Your task to perform on an android device: open chrome privacy settings Image 0: 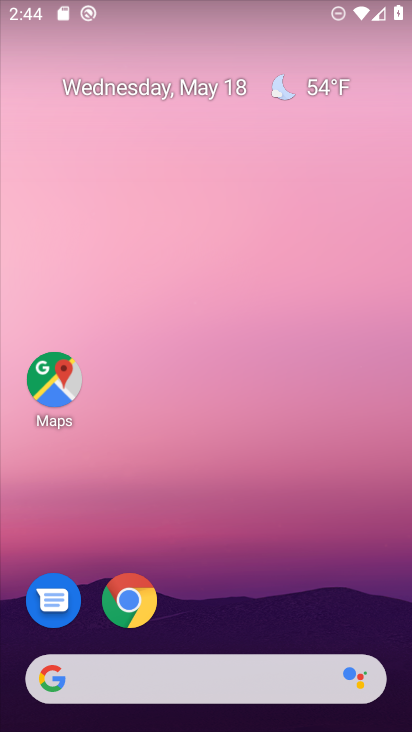
Step 0: click (140, 590)
Your task to perform on an android device: open chrome privacy settings Image 1: 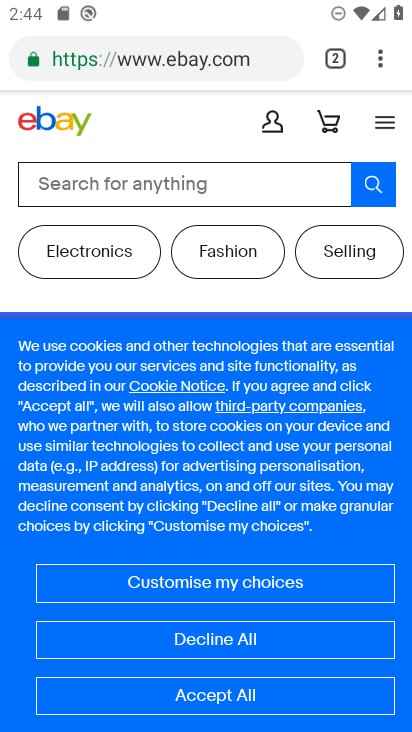
Step 1: click (380, 54)
Your task to perform on an android device: open chrome privacy settings Image 2: 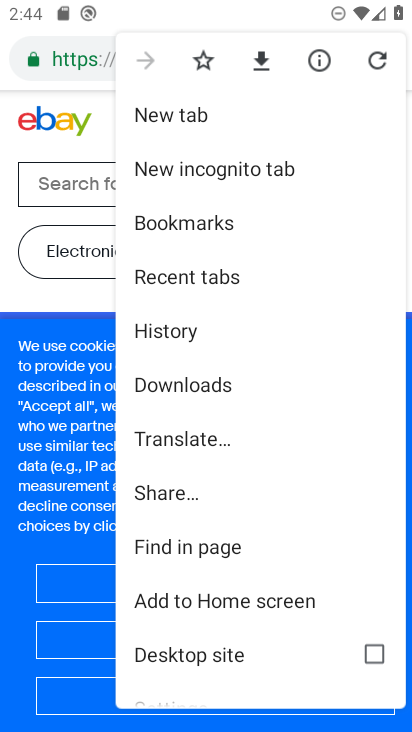
Step 2: drag from (203, 632) to (280, 312)
Your task to perform on an android device: open chrome privacy settings Image 3: 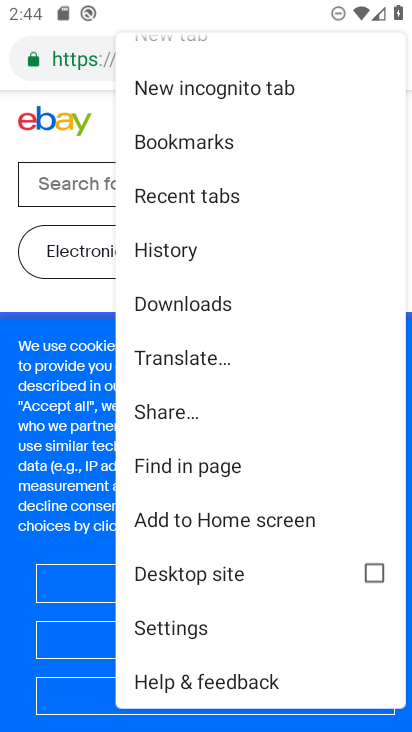
Step 3: click (204, 624)
Your task to perform on an android device: open chrome privacy settings Image 4: 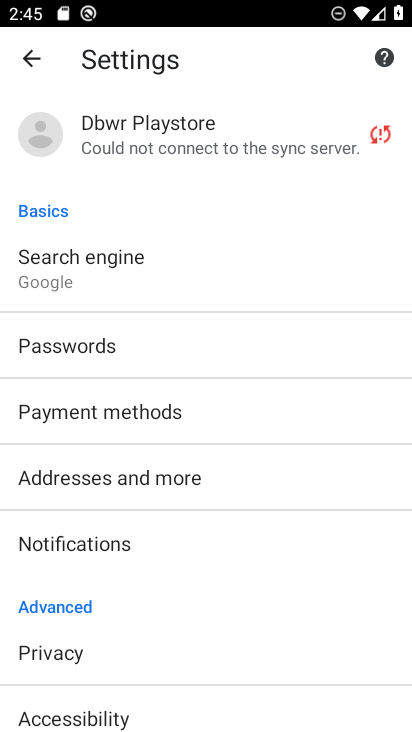
Step 4: click (77, 662)
Your task to perform on an android device: open chrome privacy settings Image 5: 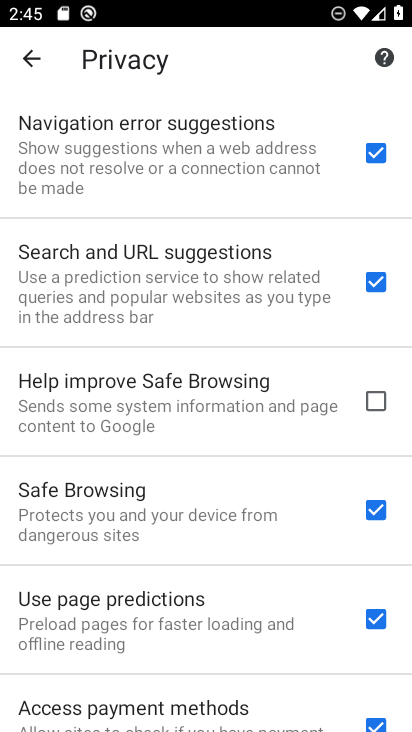
Step 5: task complete